Your task to perform on an android device: refresh tabs in the chrome app Image 0: 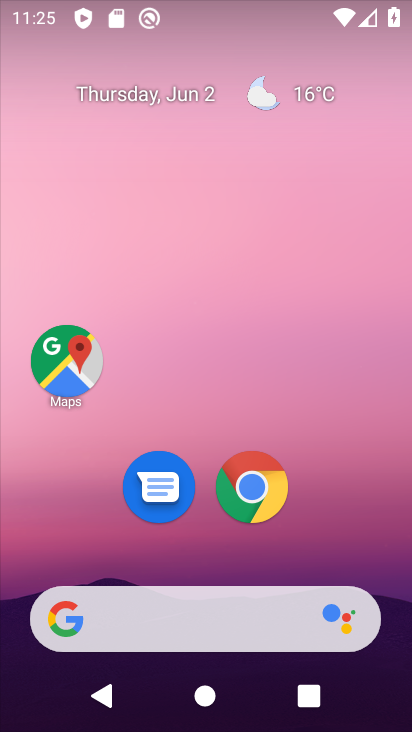
Step 0: click (268, 493)
Your task to perform on an android device: refresh tabs in the chrome app Image 1: 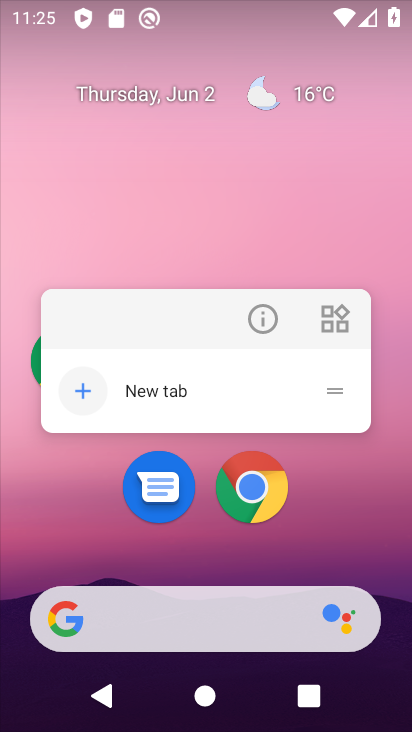
Step 1: click (265, 490)
Your task to perform on an android device: refresh tabs in the chrome app Image 2: 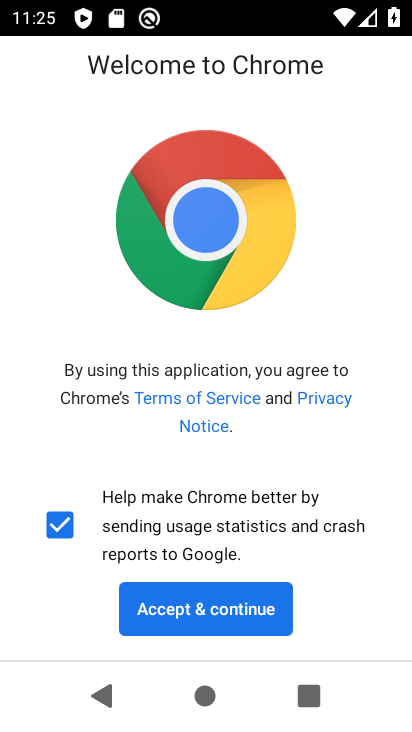
Step 2: click (209, 611)
Your task to perform on an android device: refresh tabs in the chrome app Image 3: 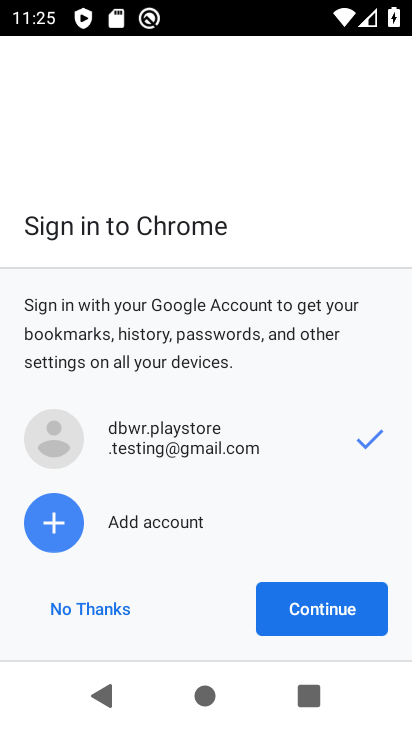
Step 3: click (347, 613)
Your task to perform on an android device: refresh tabs in the chrome app Image 4: 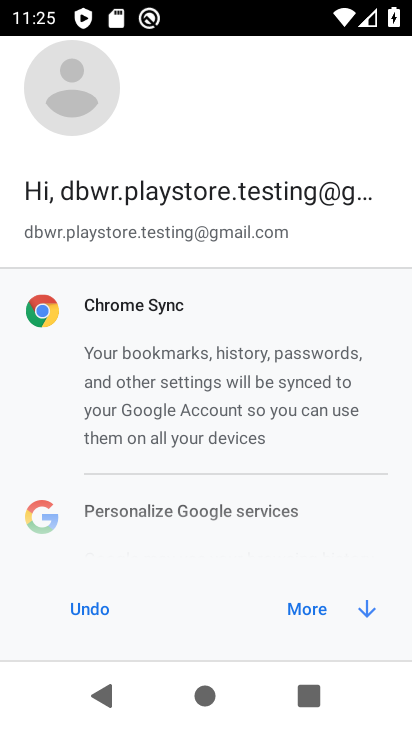
Step 4: click (370, 609)
Your task to perform on an android device: refresh tabs in the chrome app Image 5: 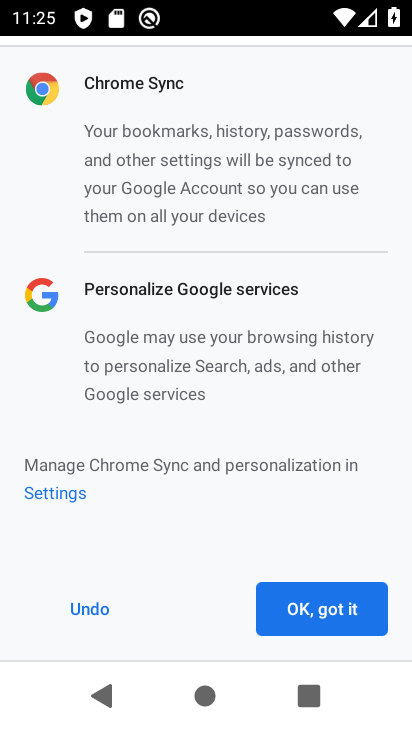
Step 5: click (367, 607)
Your task to perform on an android device: refresh tabs in the chrome app Image 6: 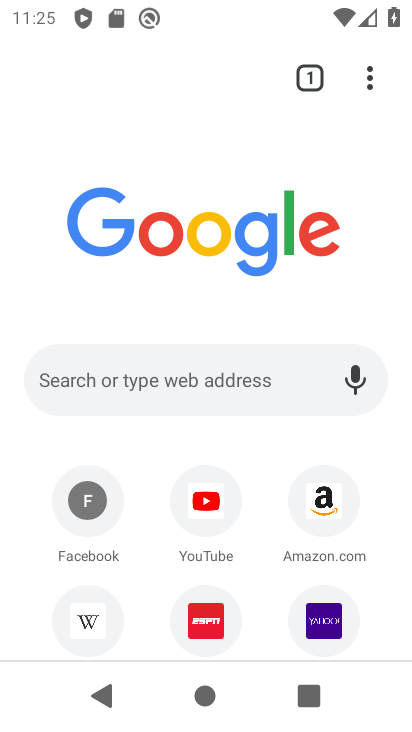
Step 6: click (368, 79)
Your task to perform on an android device: refresh tabs in the chrome app Image 7: 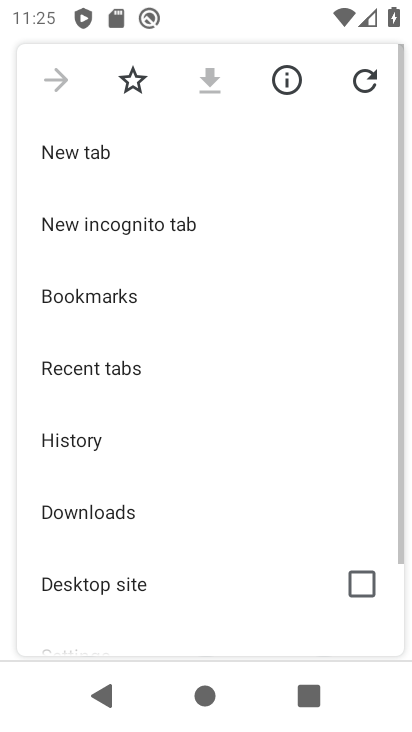
Step 7: click (374, 77)
Your task to perform on an android device: refresh tabs in the chrome app Image 8: 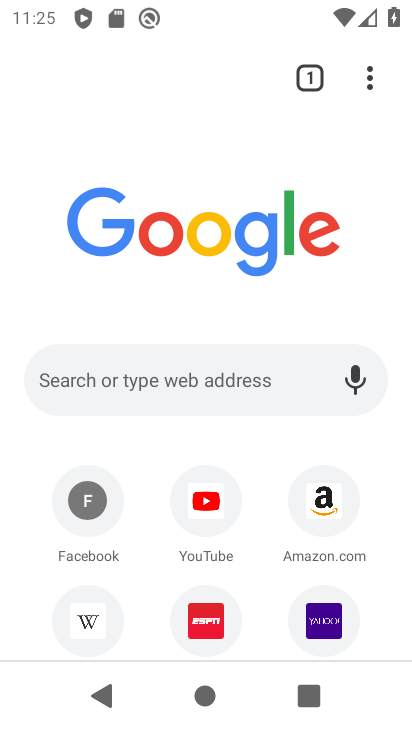
Step 8: task complete